Your task to perform on an android device: search for starred emails in the gmail app Image 0: 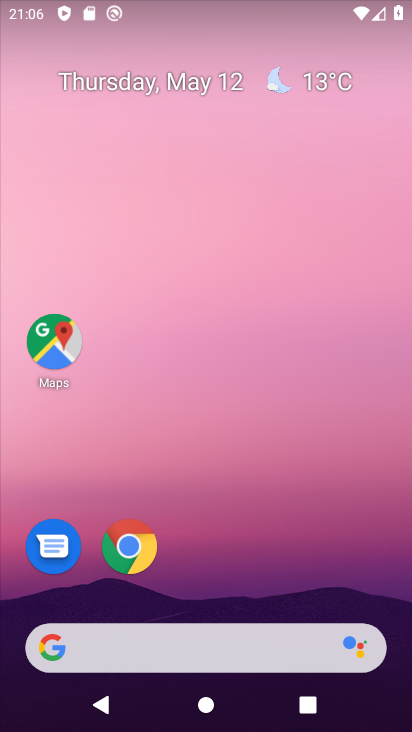
Step 0: drag from (292, 480) to (324, 169)
Your task to perform on an android device: search for starred emails in the gmail app Image 1: 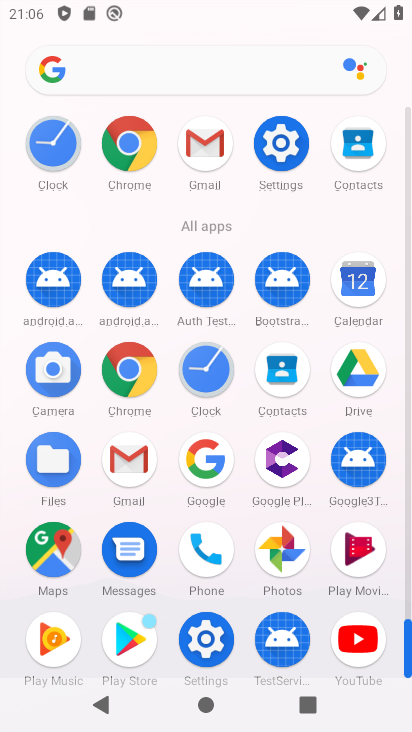
Step 1: click (122, 453)
Your task to perform on an android device: search for starred emails in the gmail app Image 2: 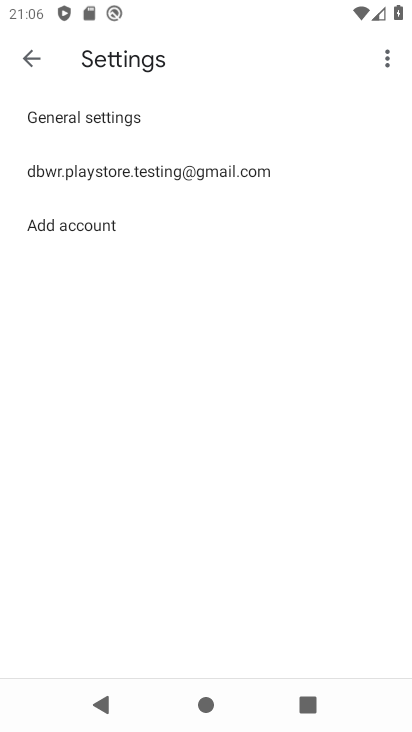
Step 2: click (25, 50)
Your task to perform on an android device: search for starred emails in the gmail app Image 3: 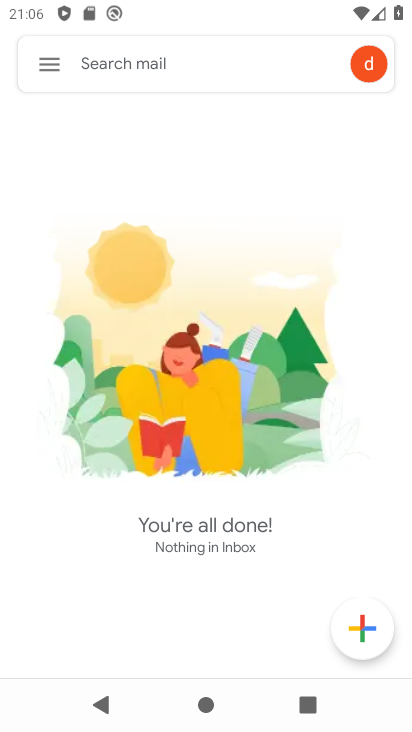
Step 3: click (63, 62)
Your task to perform on an android device: search for starred emails in the gmail app Image 4: 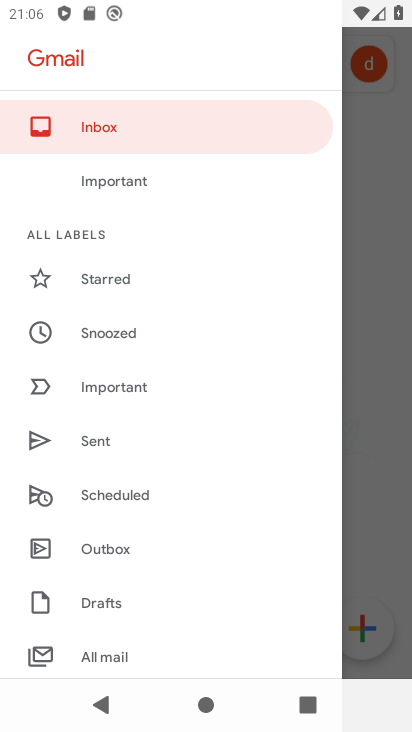
Step 4: click (100, 279)
Your task to perform on an android device: search for starred emails in the gmail app Image 5: 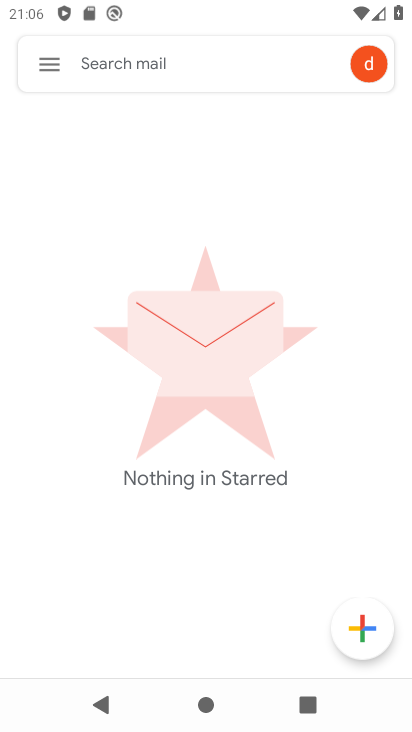
Step 5: task complete